Your task to perform on an android device: Open settings on Google Maps Image 0: 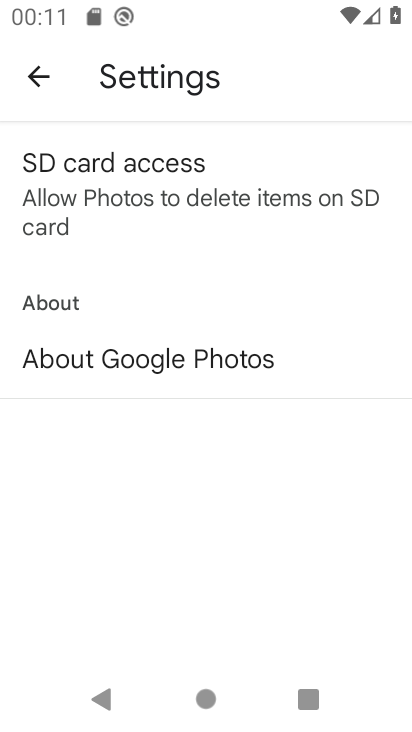
Step 0: press home button
Your task to perform on an android device: Open settings on Google Maps Image 1: 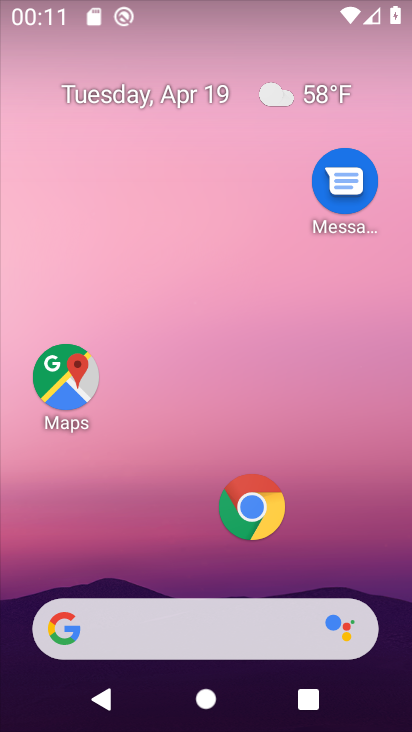
Step 1: click (64, 359)
Your task to perform on an android device: Open settings on Google Maps Image 2: 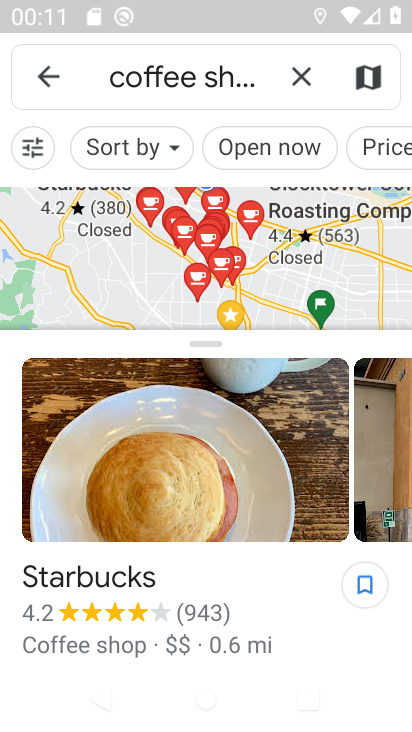
Step 2: click (46, 68)
Your task to perform on an android device: Open settings on Google Maps Image 3: 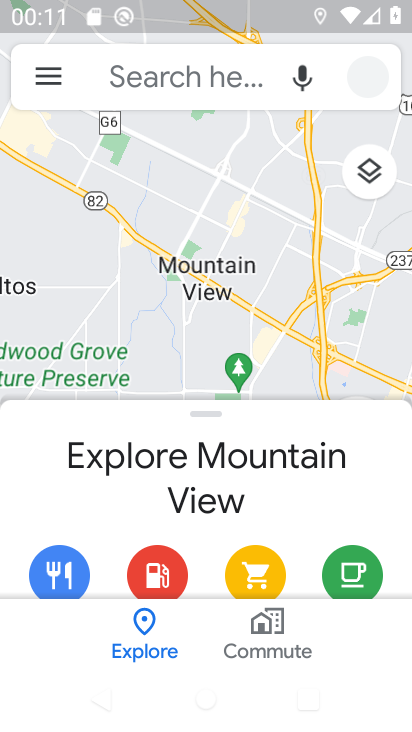
Step 3: click (46, 68)
Your task to perform on an android device: Open settings on Google Maps Image 4: 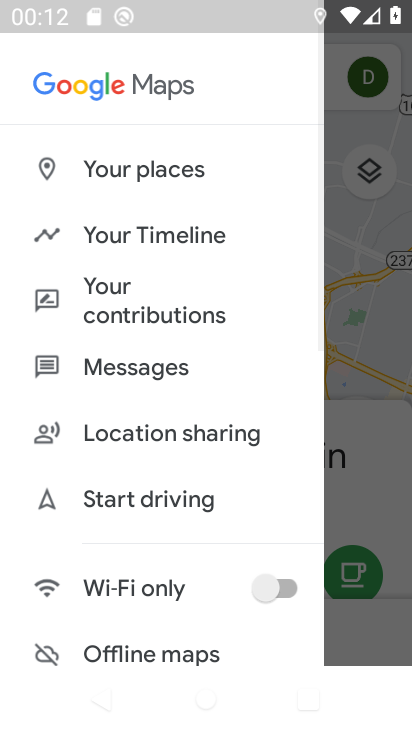
Step 4: drag from (104, 543) to (243, 10)
Your task to perform on an android device: Open settings on Google Maps Image 5: 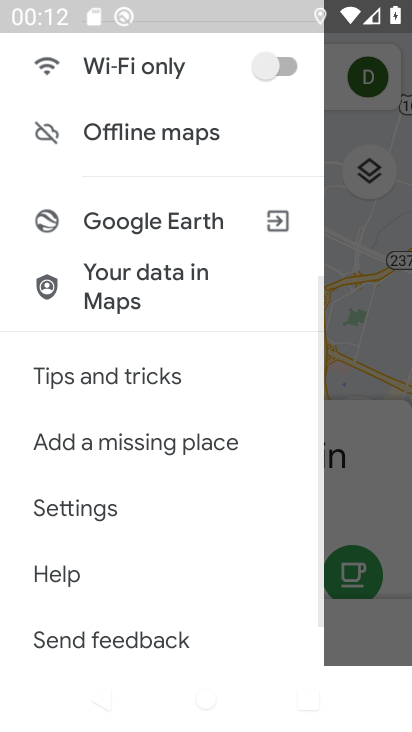
Step 5: click (102, 499)
Your task to perform on an android device: Open settings on Google Maps Image 6: 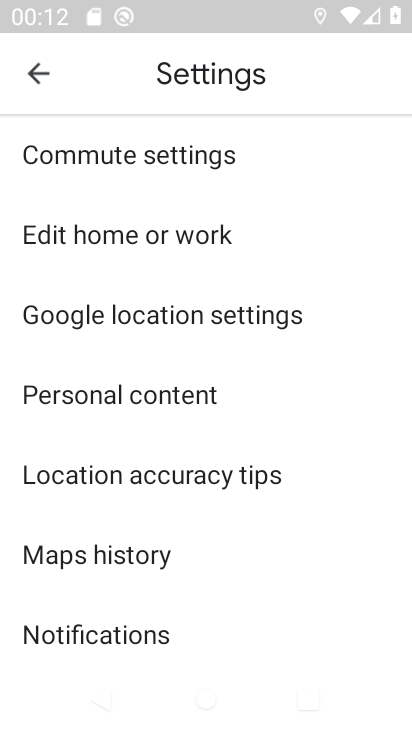
Step 6: task complete